Your task to perform on an android device: allow notifications from all sites in the chrome app Image 0: 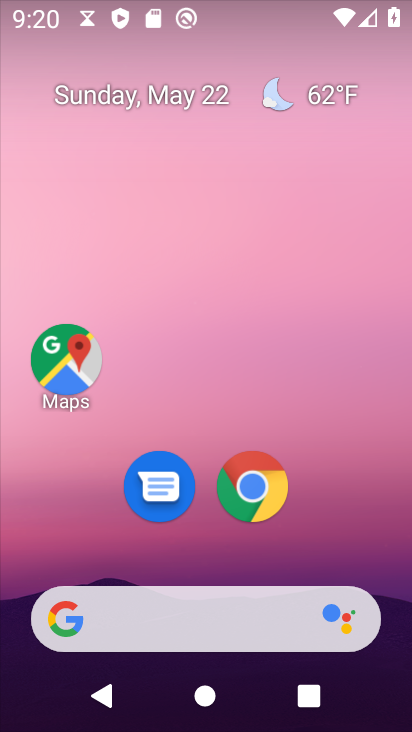
Step 0: press home button
Your task to perform on an android device: allow notifications from all sites in the chrome app Image 1: 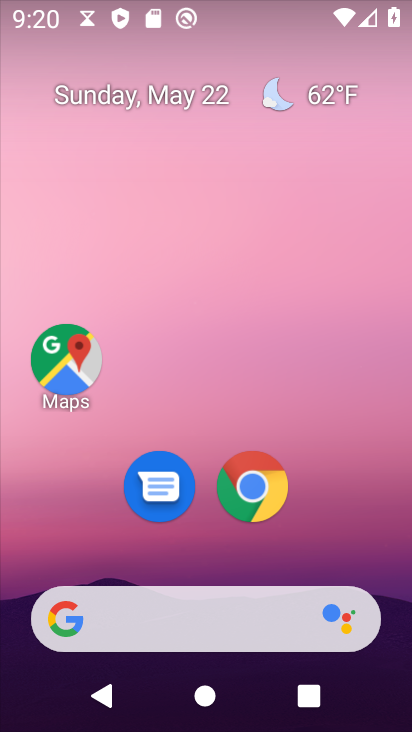
Step 1: click (246, 484)
Your task to perform on an android device: allow notifications from all sites in the chrome app Image 2: 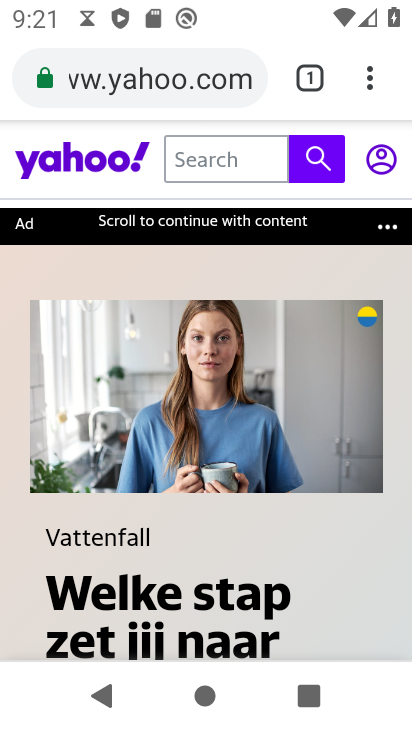
Step 2: click (372, 71)
Your task to perform on an android device: allow notifications from all sites in the chrome app Image 3: 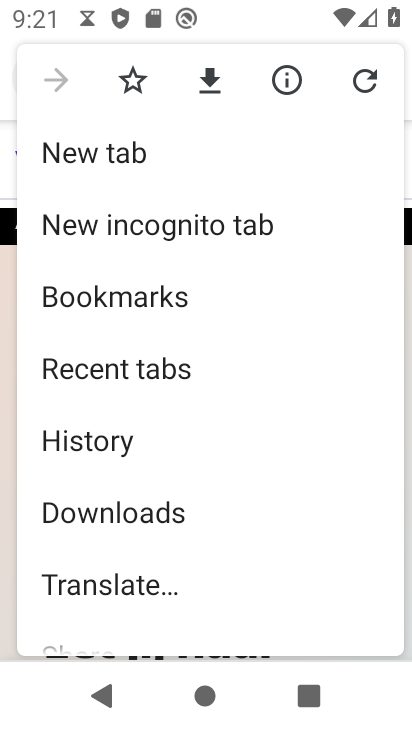
Step 3: drag from (182, 586) to (183, 156)
Your task to perform on an android device: allow notifications from all sites in the chrome app Image 4: 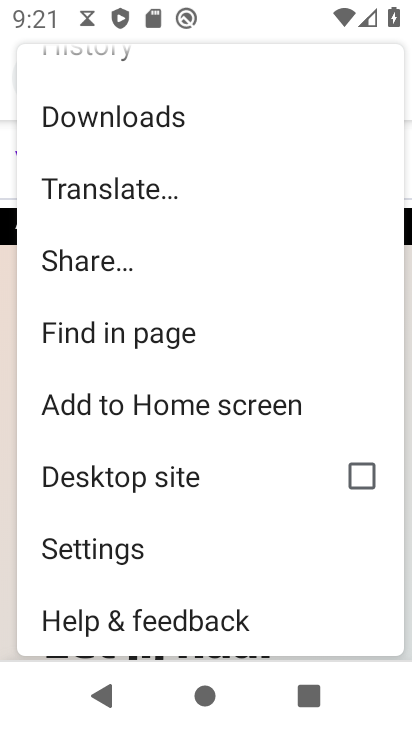
Step 4: click (157, 546)
Your task to perform on an android device: allow notifications from all sites in the chrome app Image 5: 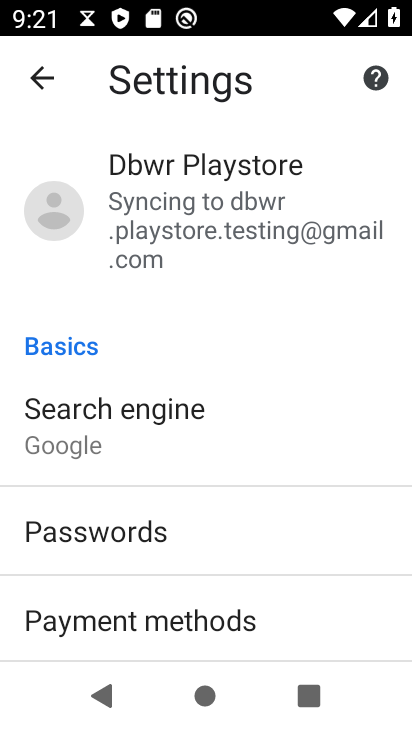
Step 5: drag from (183, 575) to (177, 124)
Your task to perform on an android device: allow notifications from all sites in the chrome app Image 6: 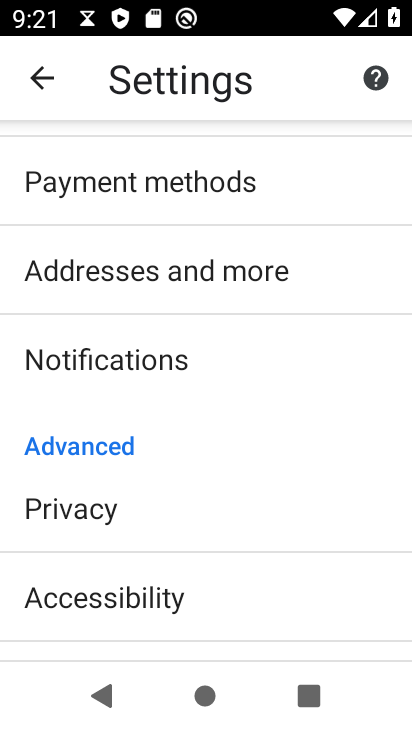
Step 6: drag from (225, 596) to (258, 139)
Your task to perform on an android device: allow notifications from all sites in the chrome app Image 7: 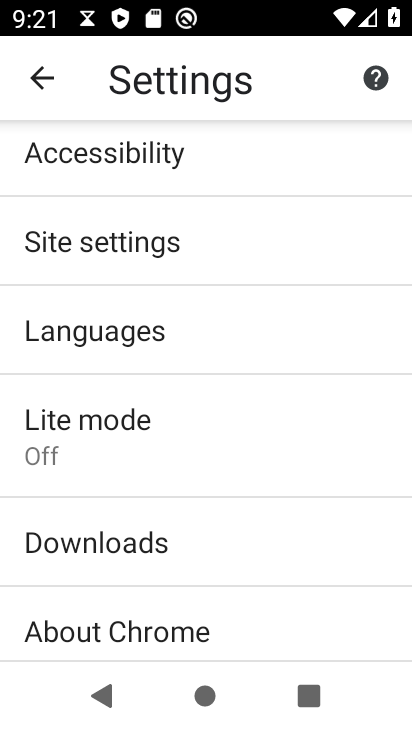
Step 7: click (190, 234)
Your task to perform on an android device: allow notifications from all sites in the chrome app Image 8: 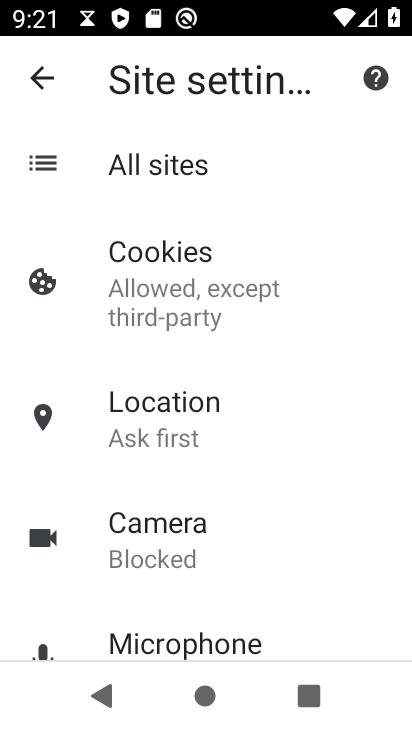
Step 8: click (85, 161)
Your task to perform on an android device: allow notifications from all sites in the chrome app Image 9: 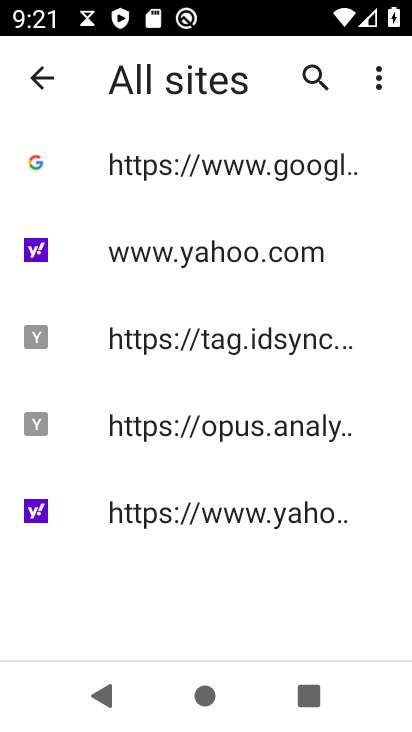
Step 9: click (75, 155)
Your task to perform on an android device: allow notifications from all sites in the chrome app Image 10: 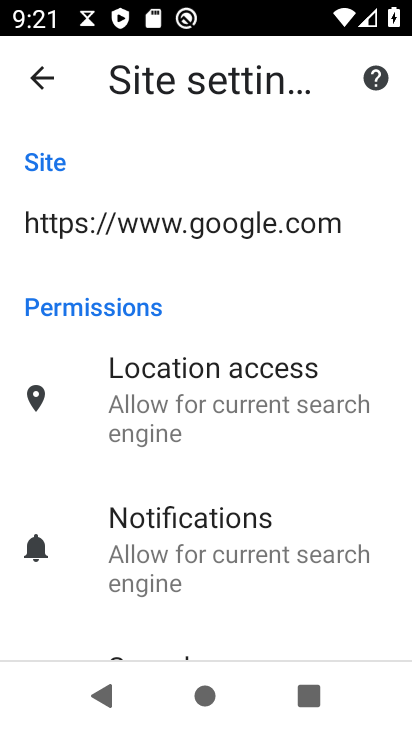
Step 10: task complete